Your task to perform on an android device: Open display settings Image 0: 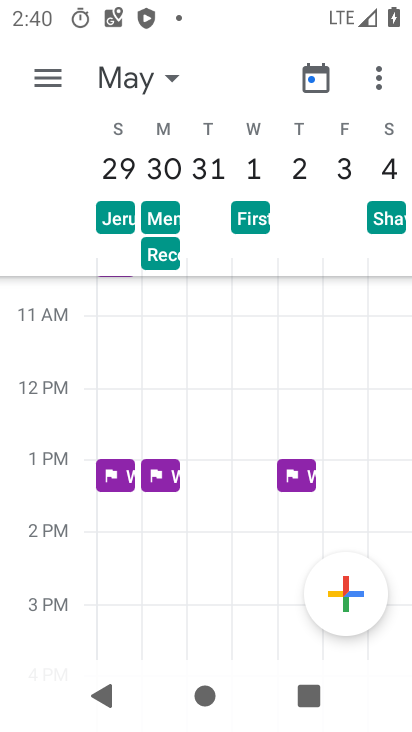
Step 0: press home button
Your task to perform on an android device: Open display settings Image 1: 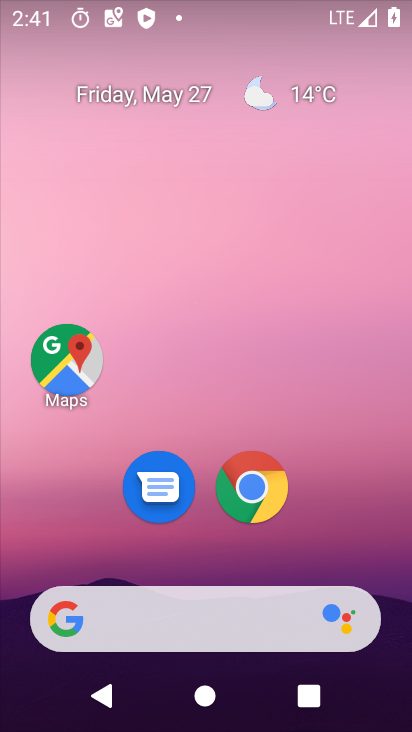
Step 1: drag from (335, 487) to (344, 90)
Your task to perform on an android device: Open display settings Image 2: 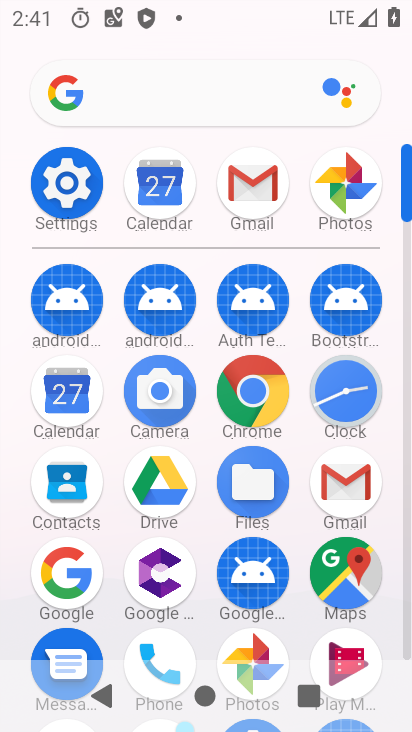
Step 2: click (79, 175)
Your task to perform on an android device: Open display settings Image 3: 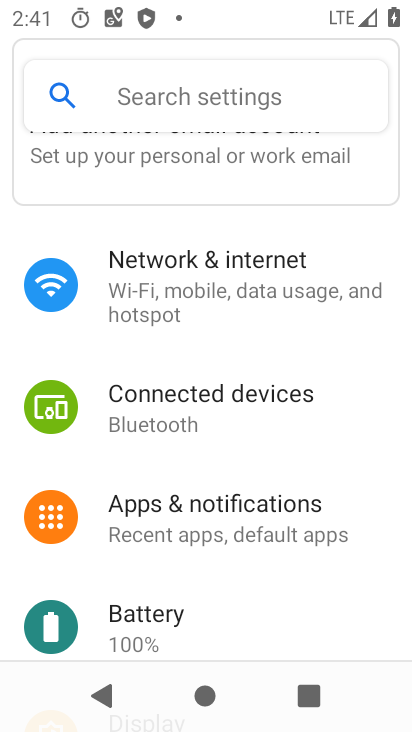
Step 3: drag from (273, 602) to (410, 171)
Your task to perform on an android device: Open display settings Image 4: 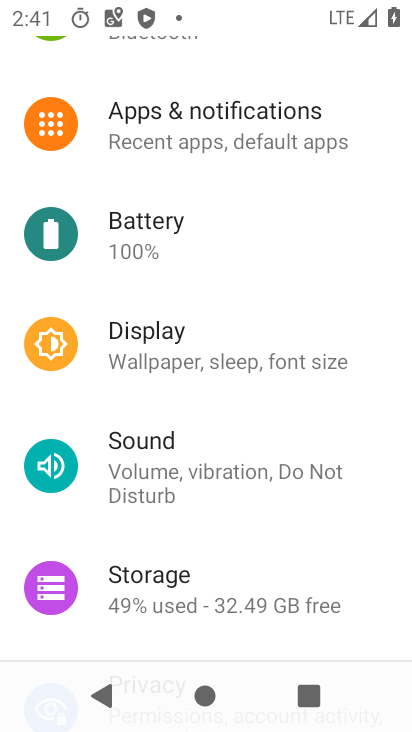
Step 4: click (186, 348)
Your task to perform on an android device: Open display settings Image 5: 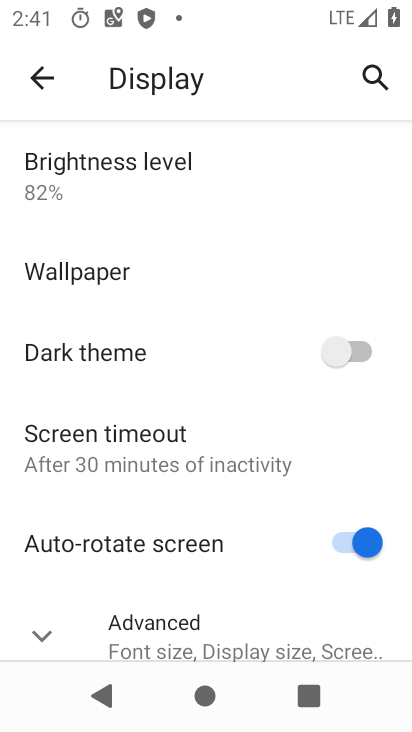
Step 5: task complete